Your task to perform on an android device: turn on improve location accuracy Image 0: 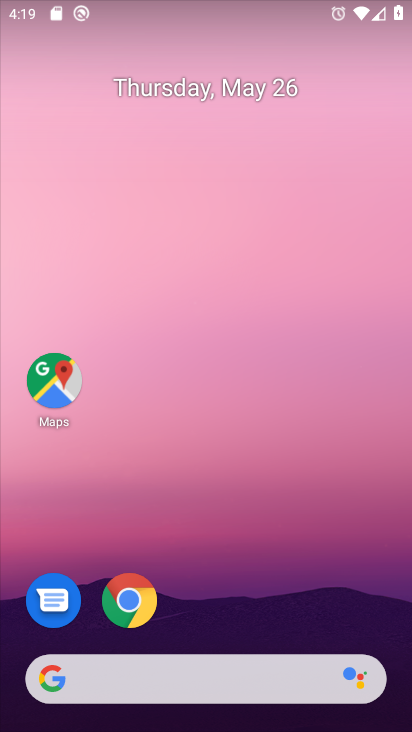
Step 0: drag from (212, 633) to (268, 99)
Your task to perform on an android device: turn on improve location accuracy Image 1: 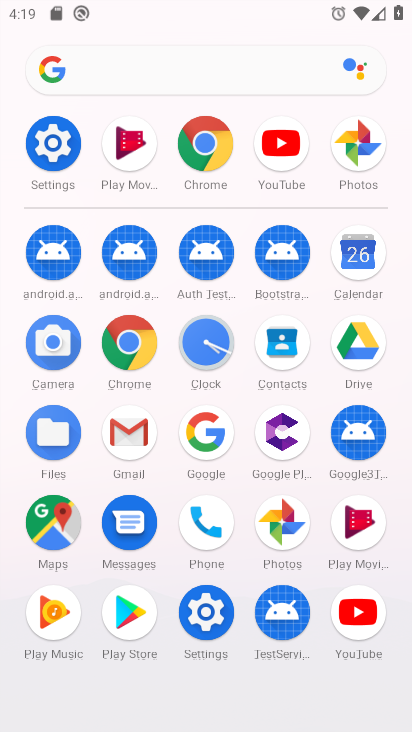
Step 1: click (70, 170)
Your task to perform on an android device: turn on improve location accuracy Image 2: 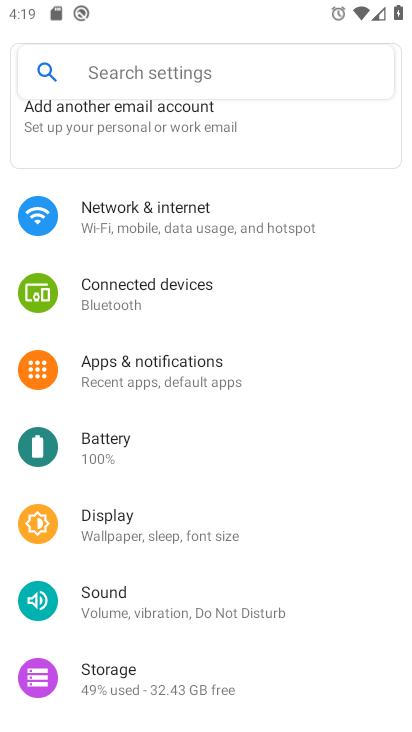
Step 2: drag from (164, 569) to (222, 232)
Your task to perform on an android device: turn on improve location accuracy Image 3: 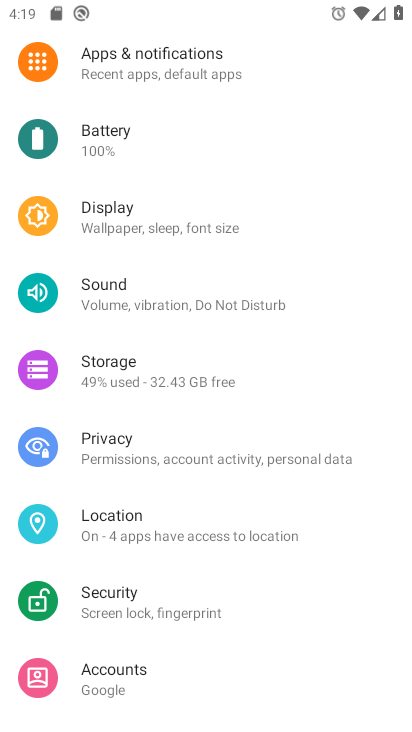
Step 3: click (163, 526)
Your task to perform on an android device: turn on improve location accuracy Image 4: 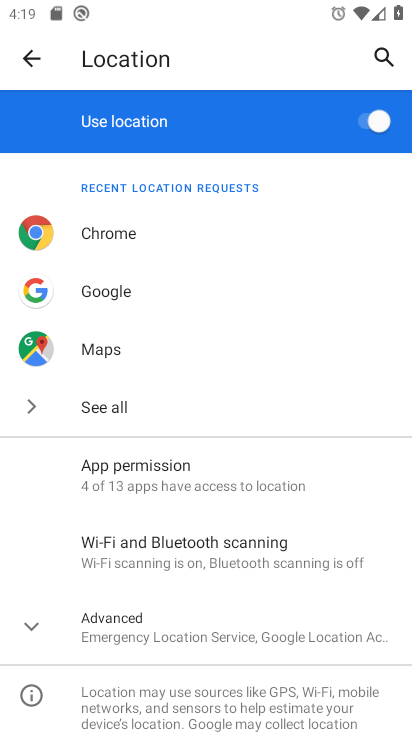
Step 4: click (174, 625)
Your task to perform on an android device: turn on improve location accuracy Image 5: 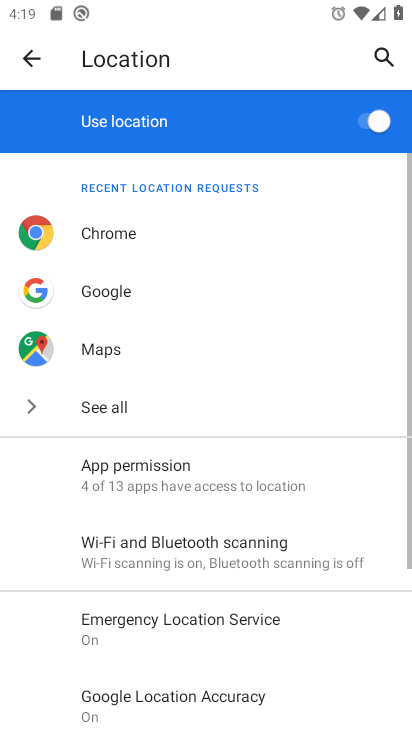
Step 5: drag from (170, 661) to (239, 463)
Your task to perform on an android device: turn on improve location accuracy Image 6: 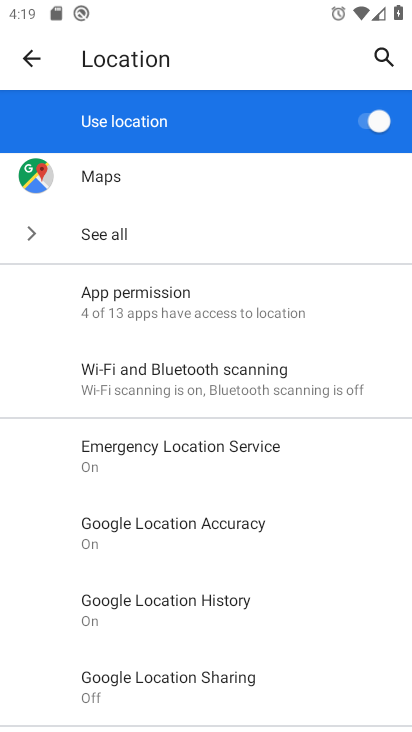
Step 6: click (197, 534)
Your task to perform on an android device: turn on improve location accuracy Image 7: 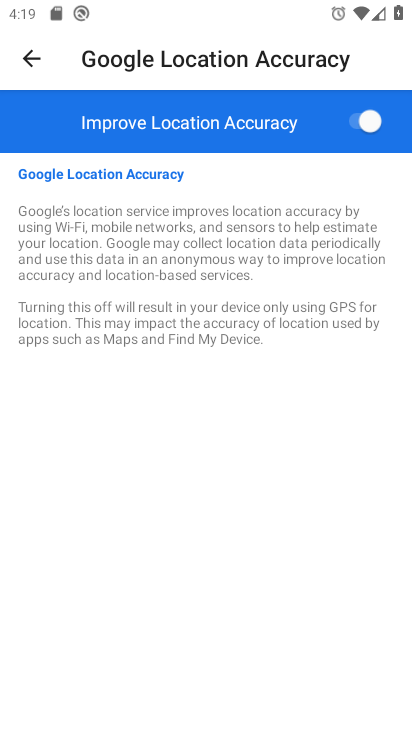
Step 7: click (336, 132)
Your task to perform on an android device: turn on improve location accuracy Image 8: 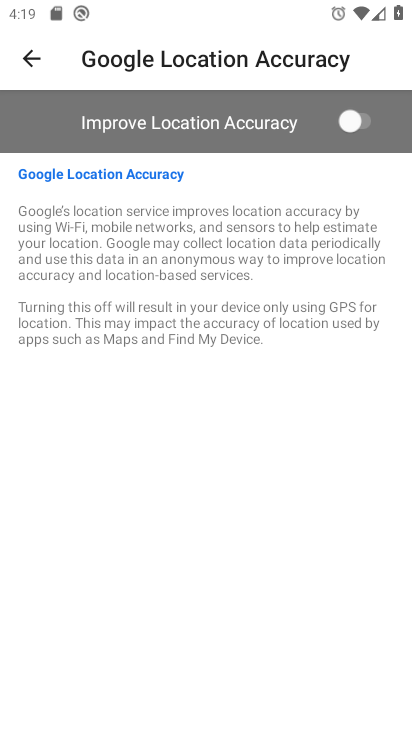
Step 8: task complete